Your task to perform on an android device: Open the calendar app, open the side menu, and click the "Day" option Image 0: 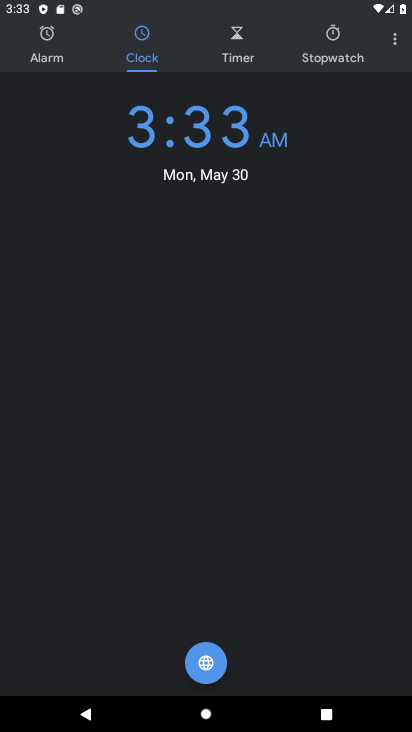
Step 0: press home button
Your task to perform on an android device: Open the calendar app, open the side menu, and click the "Day" option Image 1: 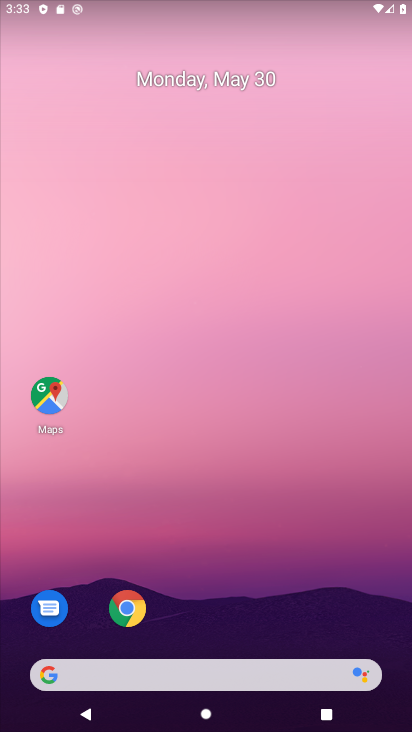
Step 1: drag from (197, 602) to (243, 250)
Your task to perform on an android device: Open the calendar app, open the side menu, and click the "Day" option Image 2: 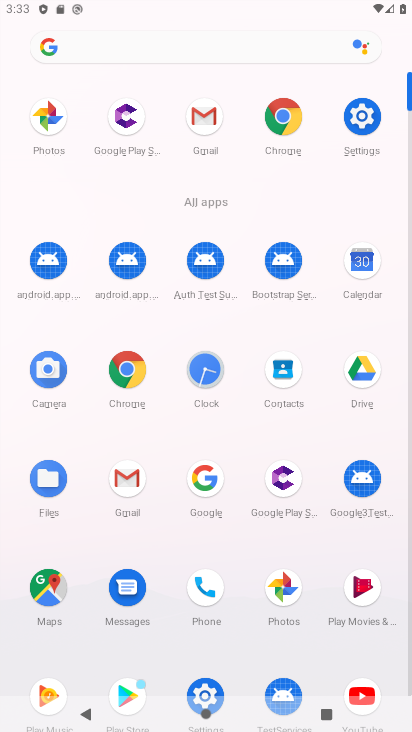
Step 2: click (364, 279)
Your task to perform on an android device: Open the calendar app, open the side menu, and click the "Day" option Image 3: 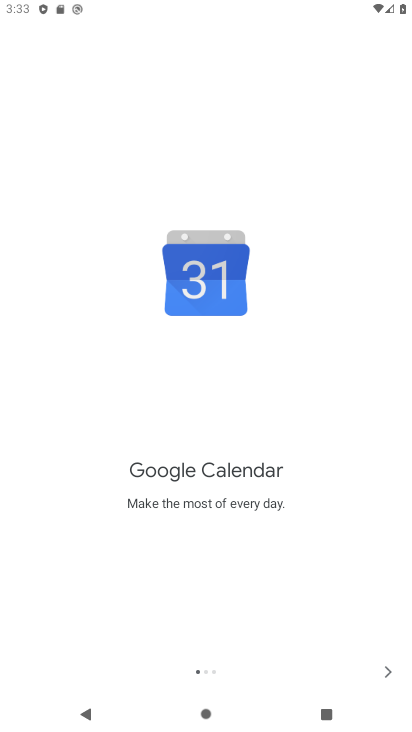
Step 3: click (386, 686)
Your task to perform on an android device: Open the calendar app, open the side menu, and click the "Day" option Image 4: 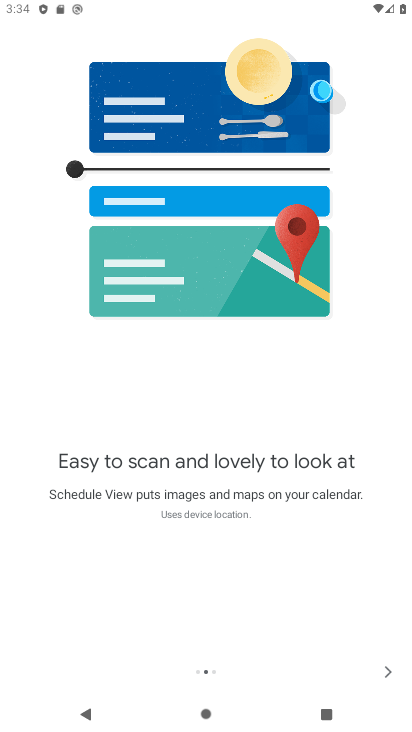
Step 4: click (391, 686)
Your task to perform on an android device: Open the calendar app, open the side menu, and click the "Day" option Image 5: 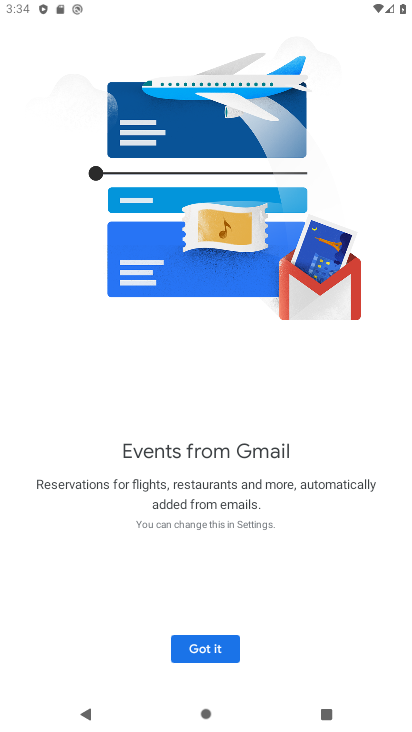
Step 5: click (392, 678)
Your task to perform on an android device: Open the calendar app, open the side menu, and click the "Day" option Image 6: 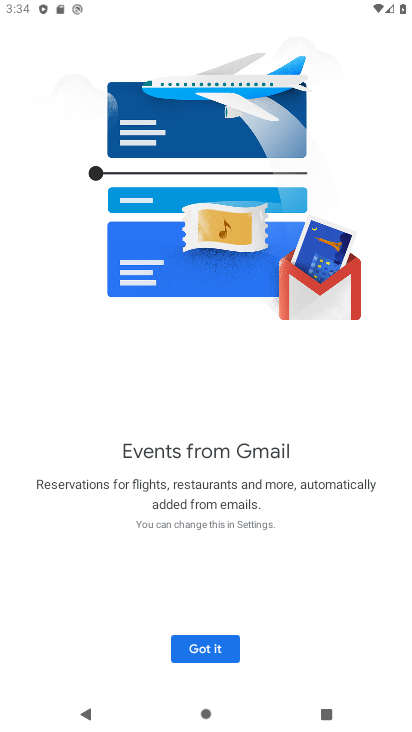
Step 6: click (259, 648)
Your task to perform on an android device: Open the calendar app, open the side menu, and click the "Day" option Image 7: 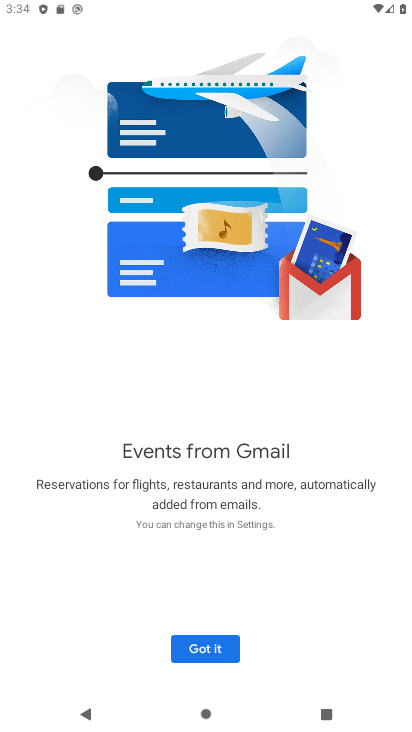
Step 7: click (238, 648)
Your task to perform on an android device: Open the calendar app, open the side menu, and click the "Day" option Image 8: 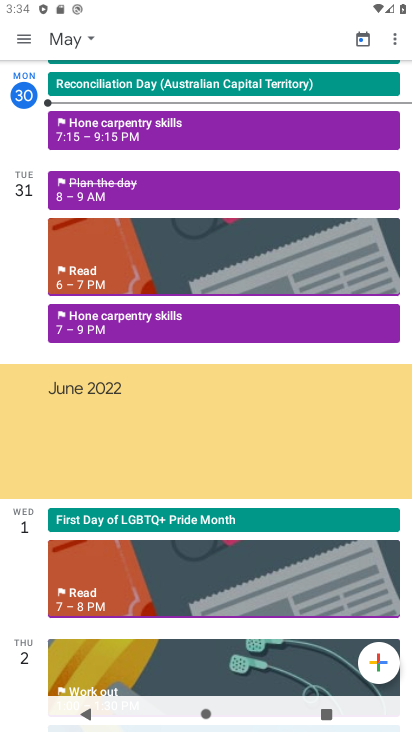
Step 8: click (26, 33)
Your task to perform on an android device: Open the calendar app, open the side menu, and click the "Day" option Image 9: 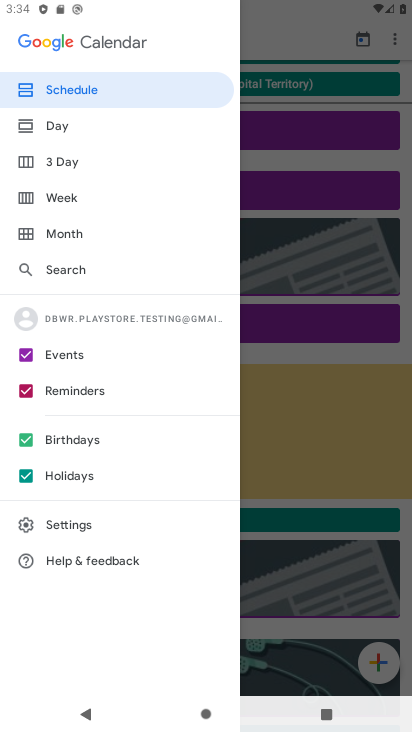
Step 9: click (113, 141)
Your task to perform on an android device: Open the calendar app, open the side menu, and click the "Day" option Image 10: 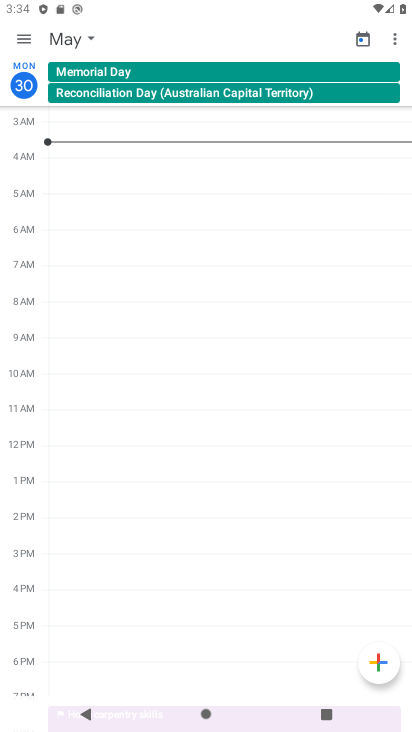
Step 10: task complete